Your task to perform on an android device: Open settings Image 0: 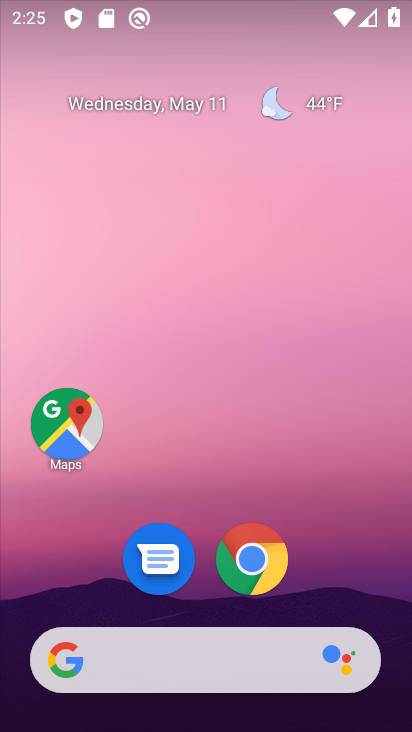
Step 0: drag from (349, 559) to (253, 46)
Your task to perform on an android device: Open settings Image 1: 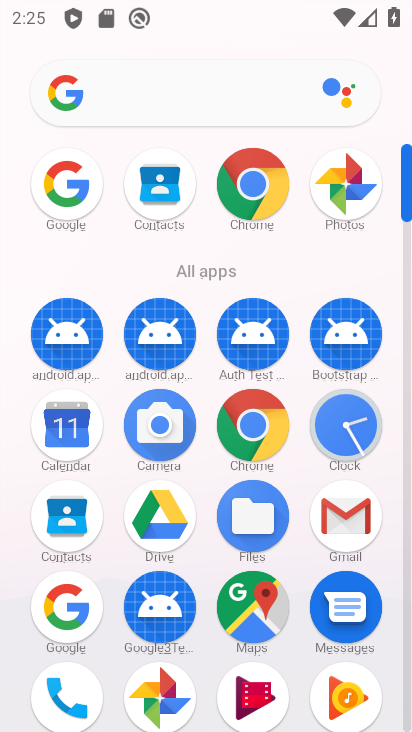
Step 1: drag from (298, 655) to (279, 132)
Your task to perform on an android device: Open settings Image 2: 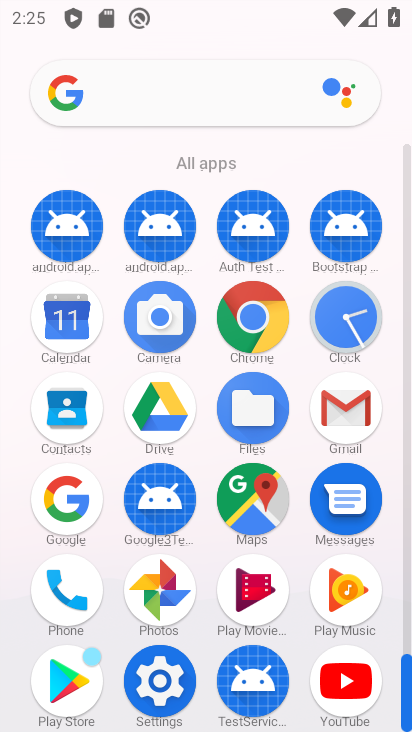
Step 2: click (151, 670)
Your task to perform on an android device: Open settings Image 3: 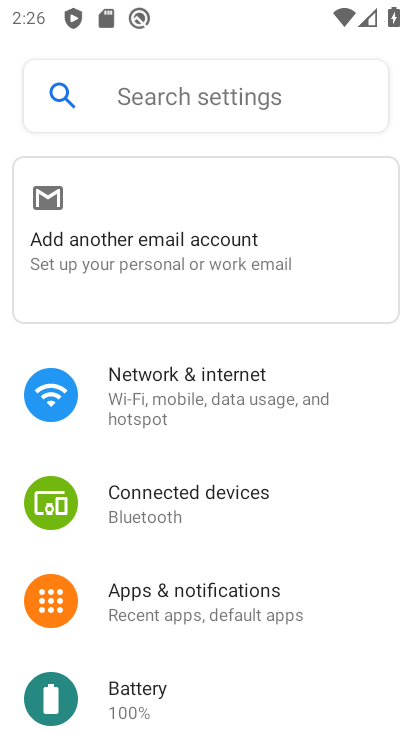
Step 3: task complete